Your task to perform on an android device: find snoozed emails in the gmail app Image 0: 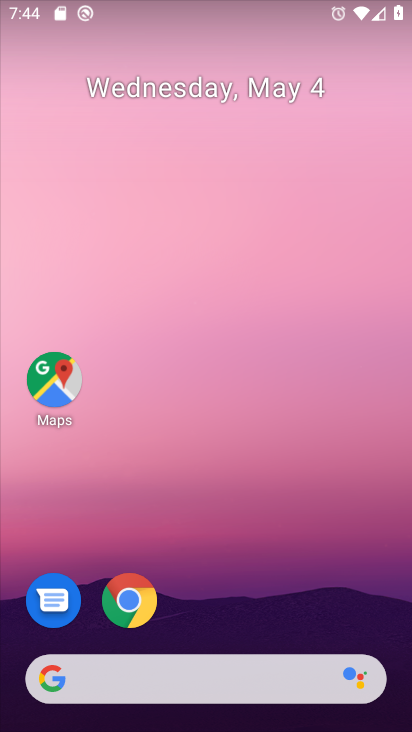
Step 0: drag from (64, 6) to (284, 638)
Your task to perform on an android device: find snoozed emails in the gmail app Image 1: 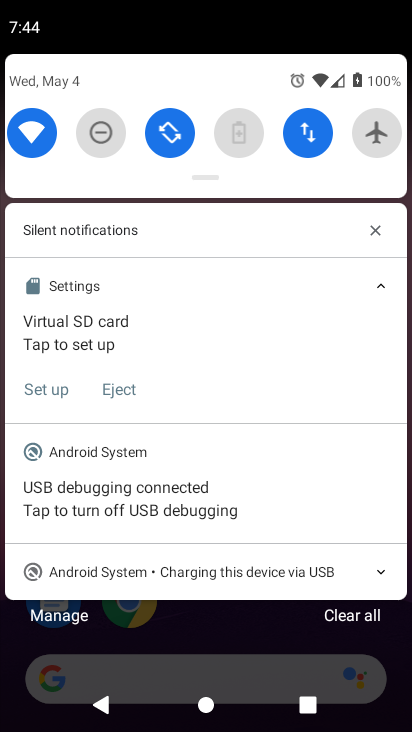
Step 1: drag from (244, 174) to (182, 728)
Your task to perform on an android device: find snoozed emails in the gmail app Image 2: 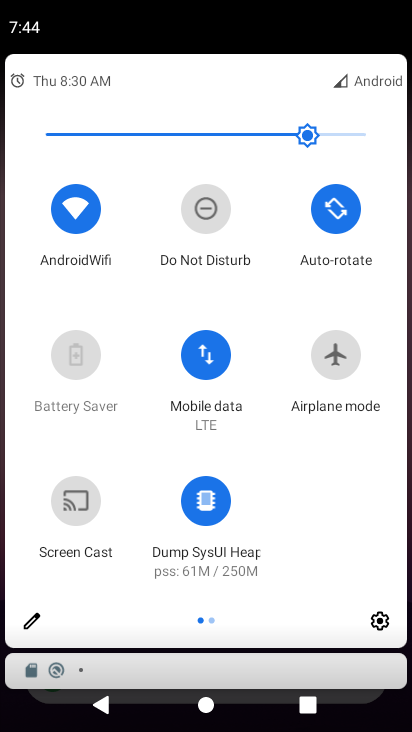
Step 2: press home button
Your task to perform on an android device: find snoozed emails in the gmail app Image 3: 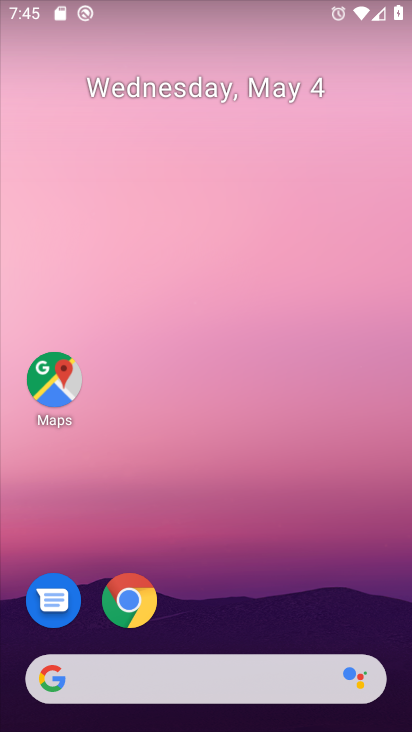
Step 3: drag from (226, 655) to (395, 440)
Your task to perform on an android device: find snoozed emails in the gmail app Image 4: 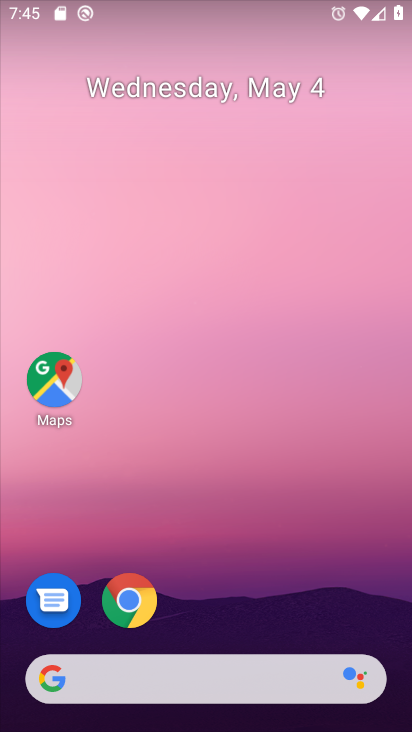
Step 4: drag from (196, 661) to (403, 1)
Your task to perform on an android device: find snoozed emails in the gmail app Image 5: 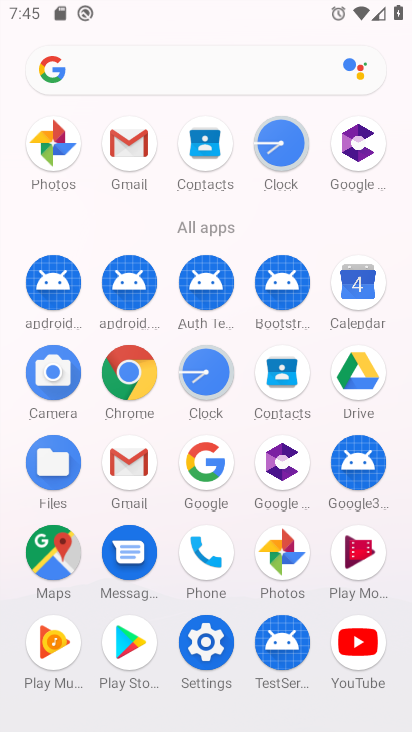
Step 5: click (130, 142)
Your task to perform on an android device: find snoozed emails in the gmail app Image 6: 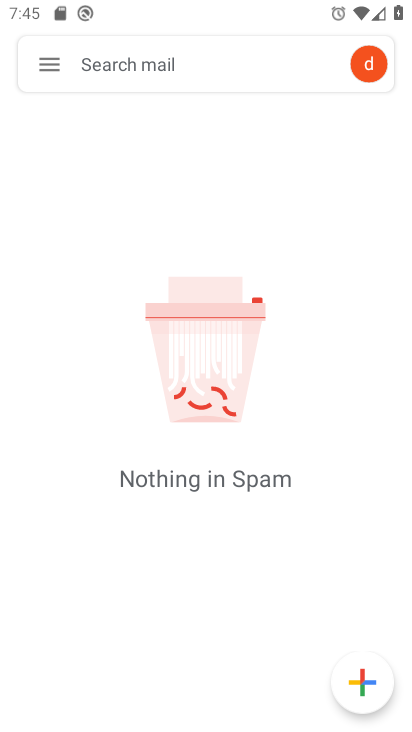
Step 6: click (45, 68)
Your task to perform on an android device: find snoozed emails in the gmail app Image 7: 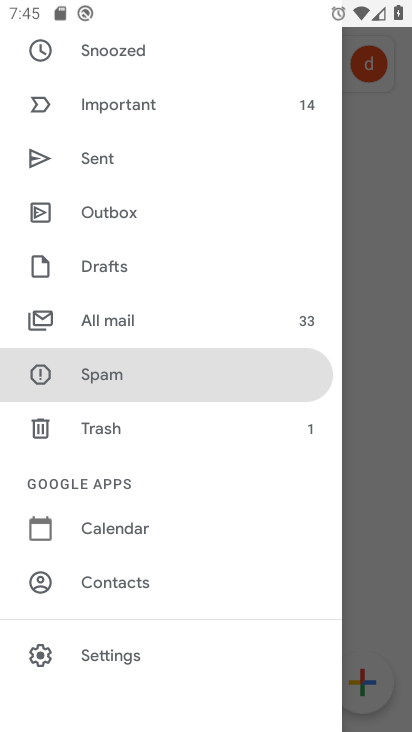
Step 7: click (110, 51)
Your task to perform on an android device: find snoozed emails in the gmail app Image 8: 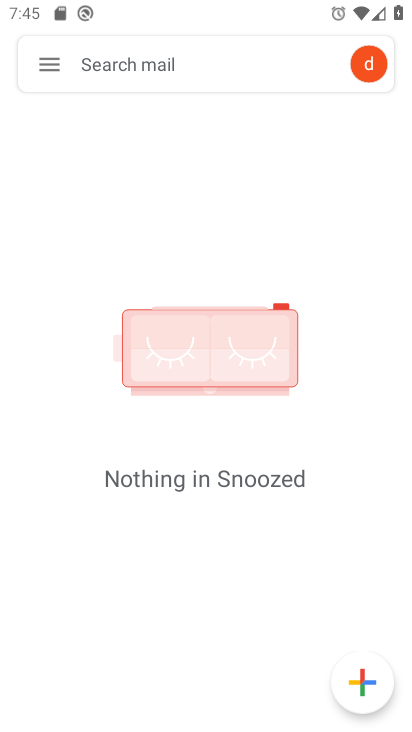
Step 8: task complete